Your task to perform on an android device: Open network settings Image 0: 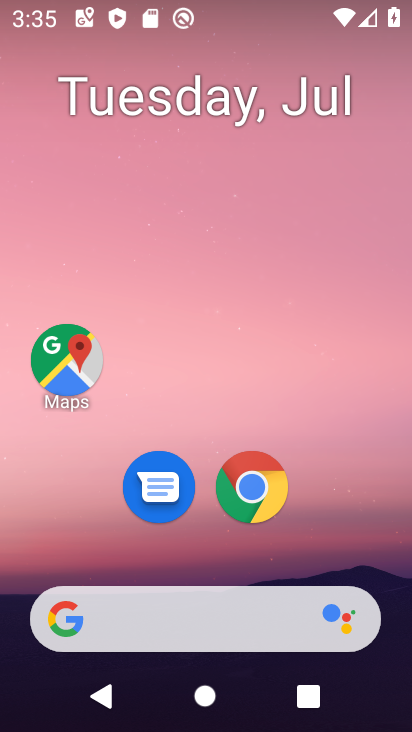
Step 0: drag from (172, 525) to (171, 1)
Your task to perform on an android device: Open network settings Image 1: 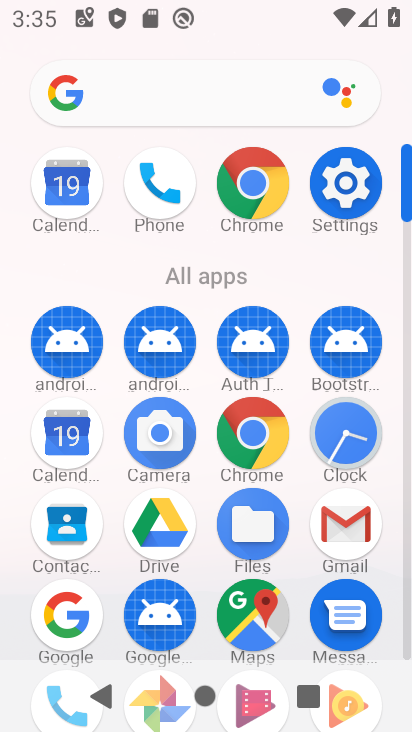
Step 1: click (345, 201)
Your task to perform on an android device: Open network settings Image 2: 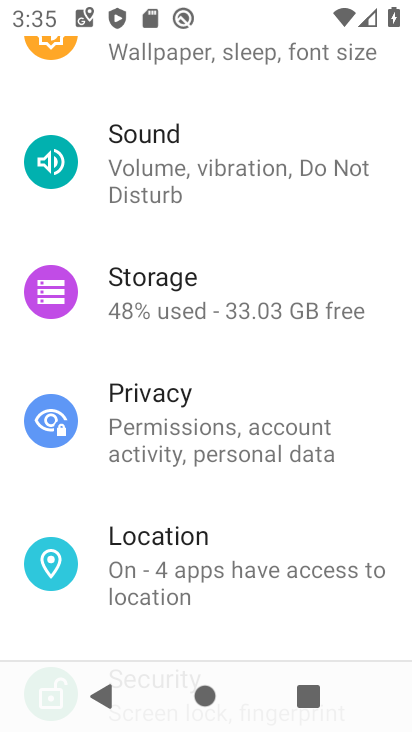
Step 2: drag from (200, 216) to (157, 642)
Your task to perform on an android device: Open network settings Image 3: 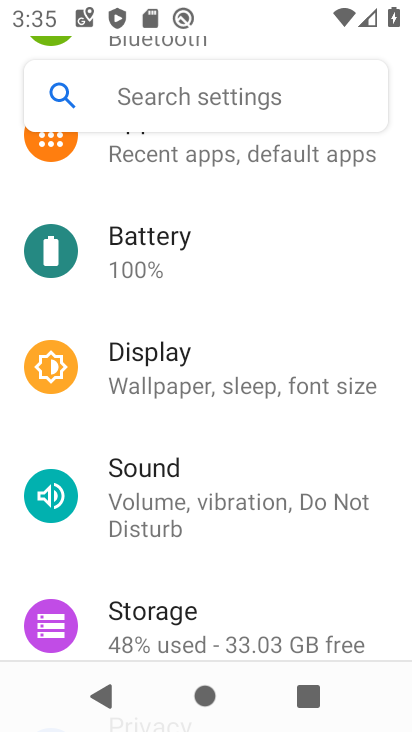
Step 3: drag from (224, 208) to (186, 546)
Your task to perform on an android device: Open network settings Image 4: 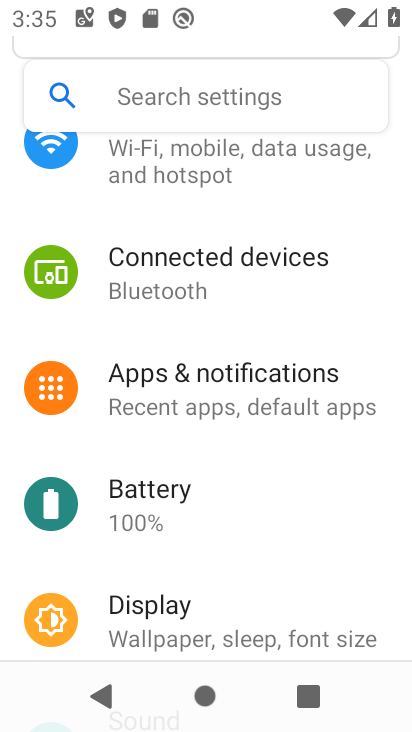
Step 4: drag from (254, 234) to (261, 725)
Your task to perform on an android device: Open network settings Image 5: 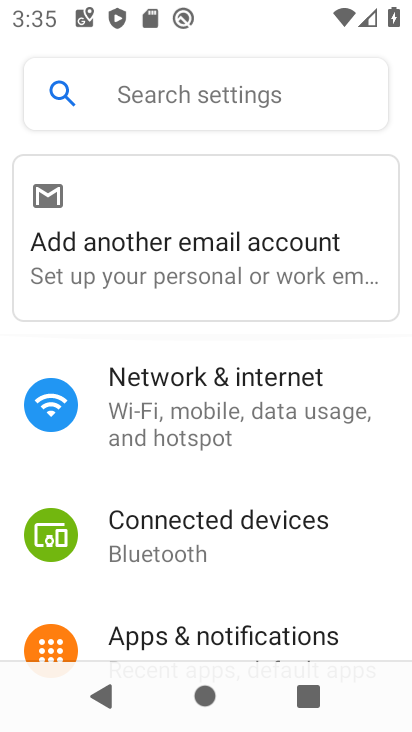
Step 5: click (191, 403)
Your task to perform on an android device: Open network settings Image 6: 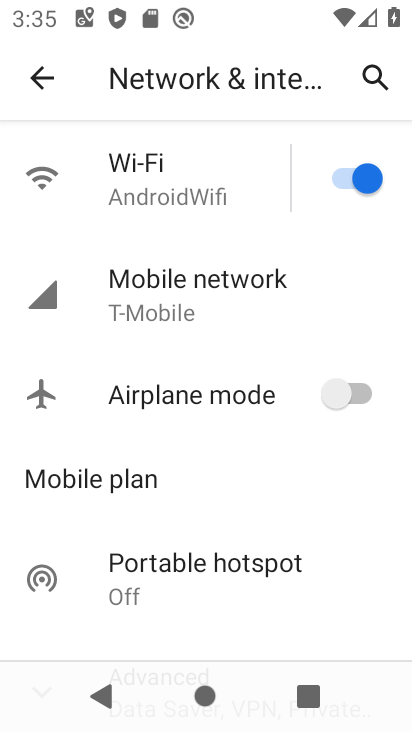
Step 6: task complete